Your task to perform on an android device: Is it going to rain this weekend? Image 0: 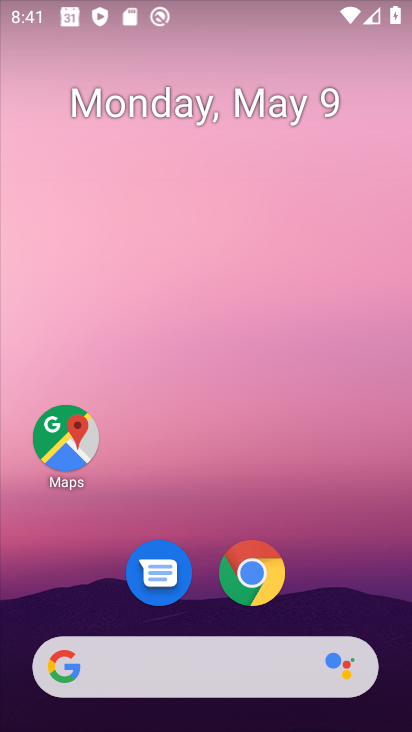
Step 0: drag from (339, 582) to (304, 12)
Your task to perform on an android device: Is it going to rain this weekend? Image 1: 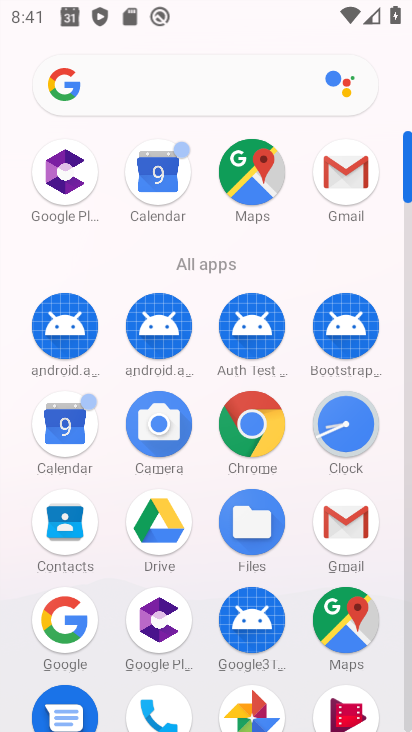
Step 1: click (157, 93)
Your task to perform on an android device: Is it going to rain this weekend? Image 2: 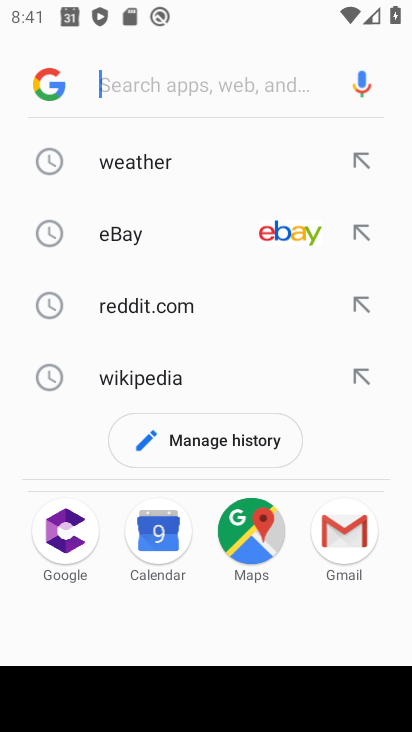
Step 2: type "is it going to rain this weekend"
Your task to perform on an android device: Is it going to rain this weekend? Image 3: 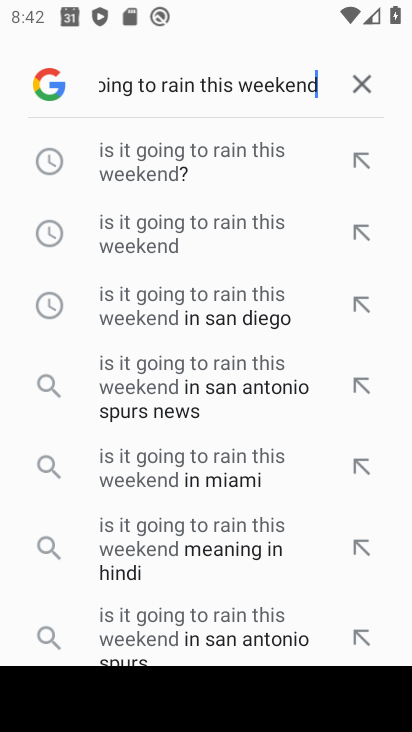
Step 3: click (127, 171)
Your task to perform on an android device: Is it going to rain this weekend? Image 4: 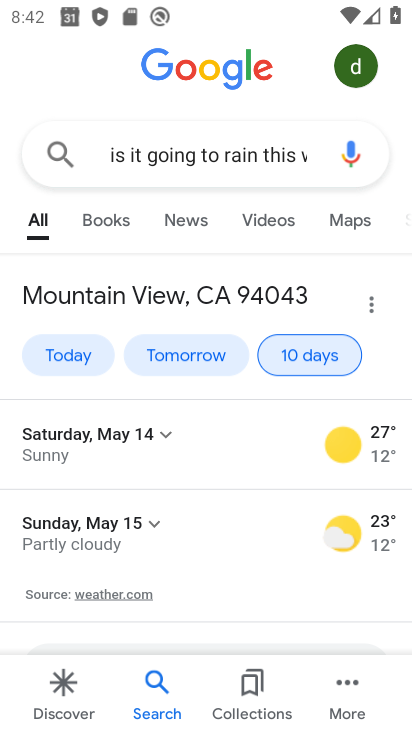
Step 4: task complete